Your task to perform on an android device: Go to CNN.com Image 0: 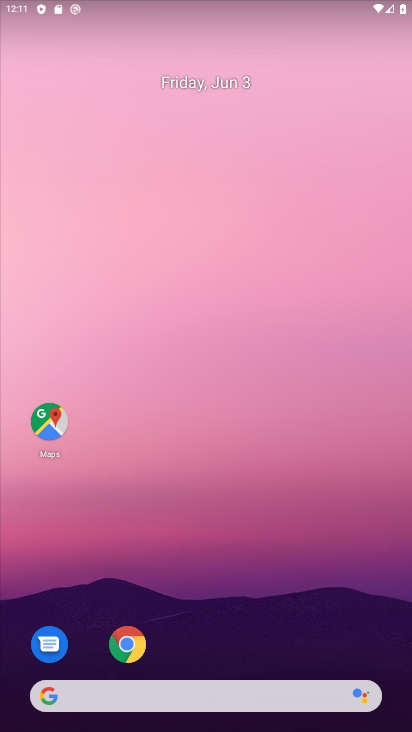
Step 0: click (128, 648)
Your task to perform on an android device: Go to CNN.com Image 1: 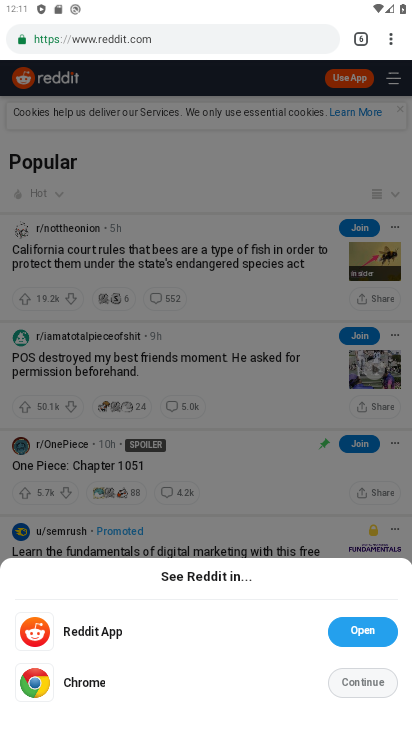
Step 1: click (392, 41)
Your task to perform on an android device: Go to CNN.com Image 2: 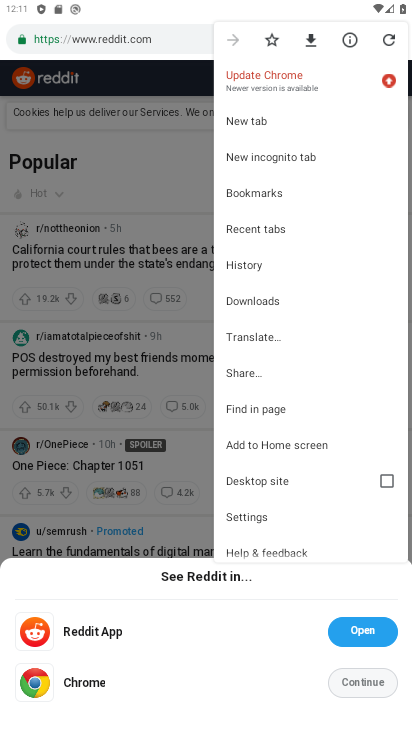
Step 2: click (252, 118)
Your task to perform on an android device: Go to CNN.com Image 3: 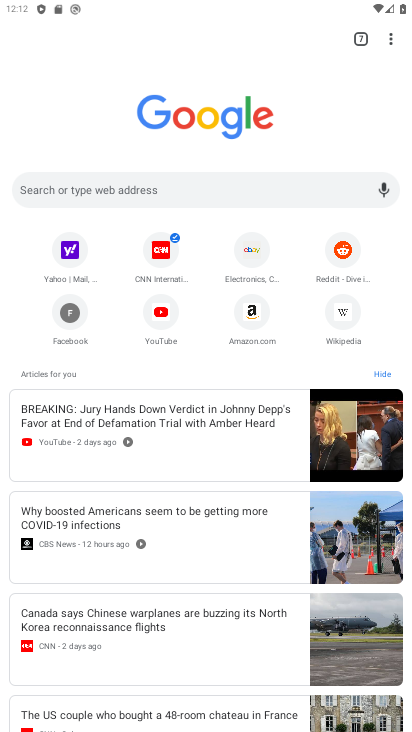
Step 3: click (163, 249)
Your task to perform on an android device: Go to CNN.com Image 4: 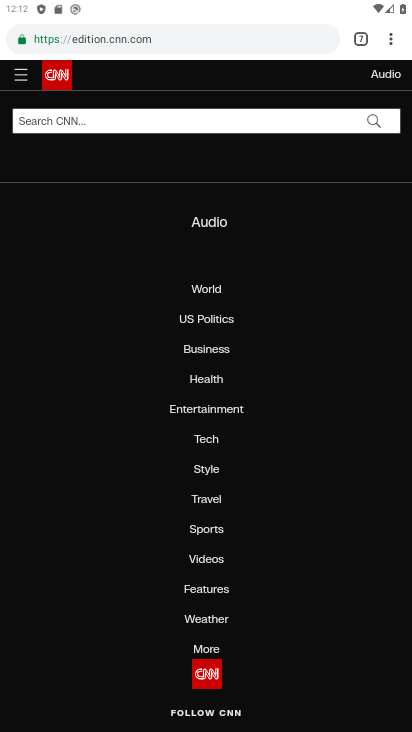
Step 4: task complete